Your task to perform on an android device: turn on notifications settings in the gmail app Image 0: 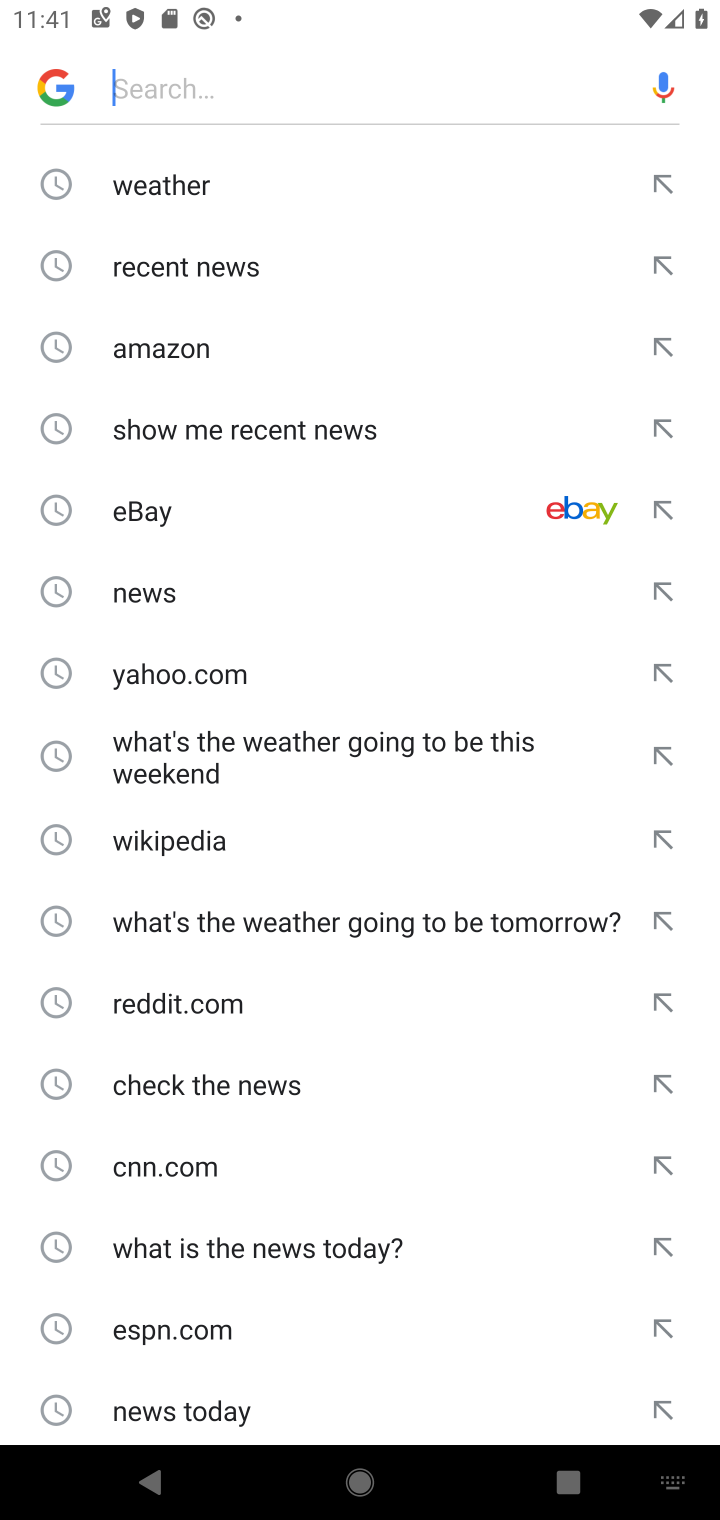
Step 0: press back button
Your task to perform on an android device: turn on notifications settings in the gmail app Image 1: 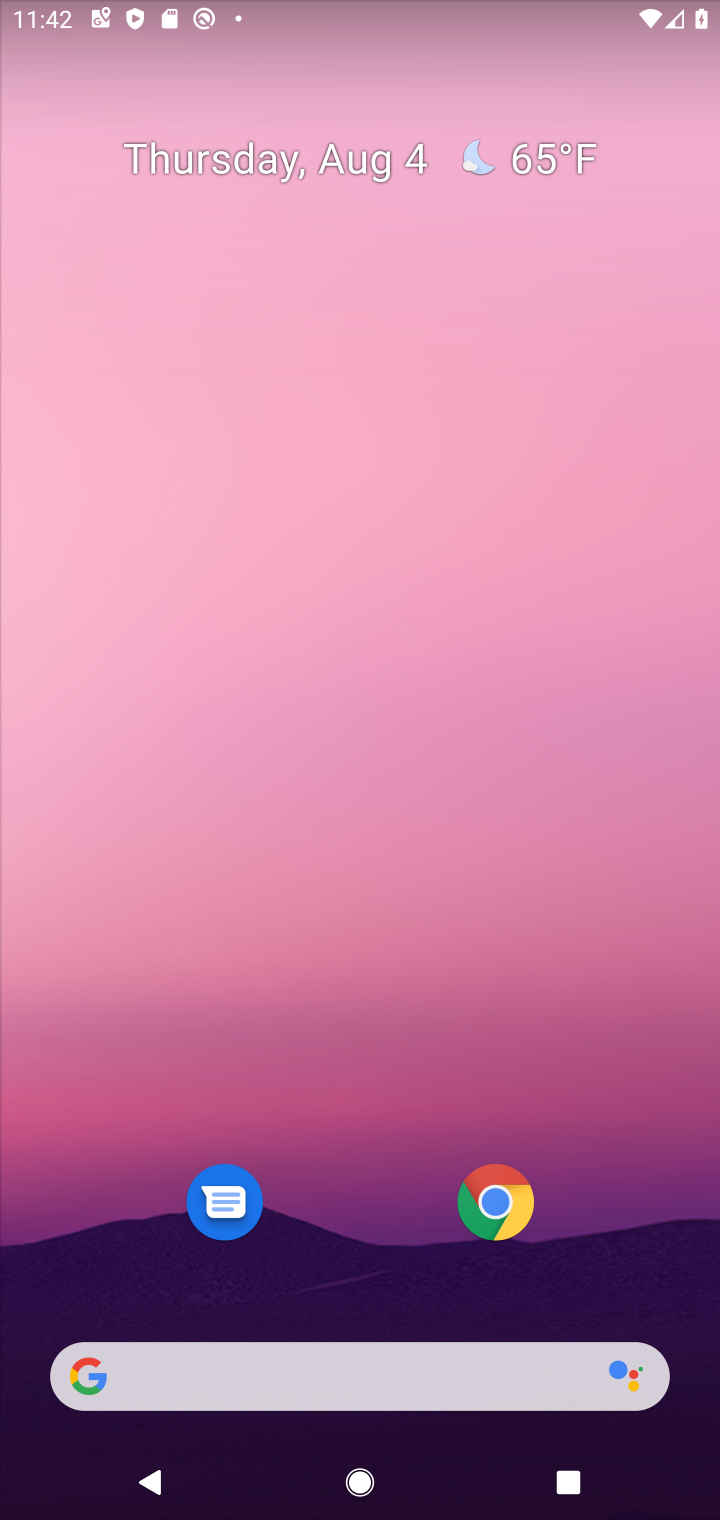
Step 1: drag from (279, 1021) to (482, 81)
Your task to perform on an android device: turn on notifications settings in the gmail app Image 2: 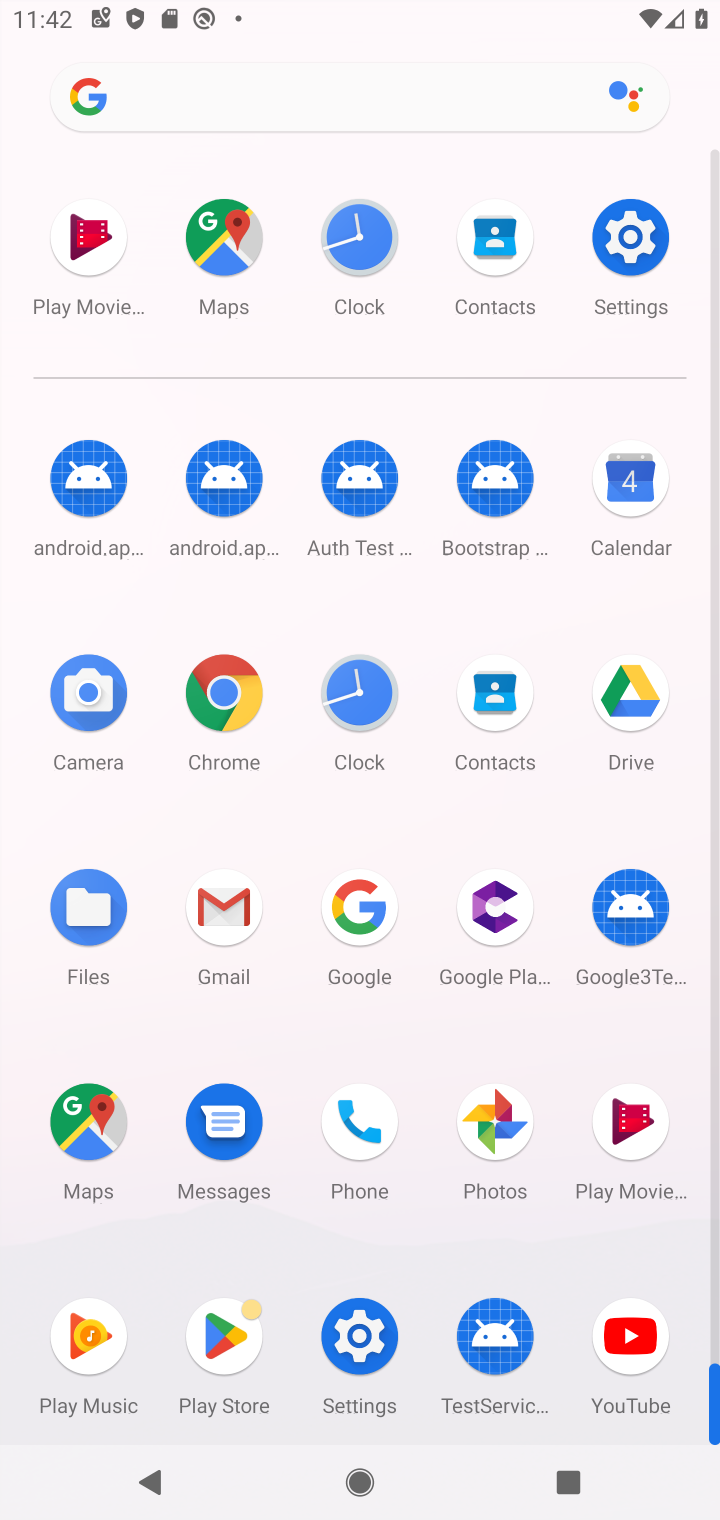
Step 2: click (204, 899)
Your task to perform on an android device: turn on notifications settings in the gmail app Image 3: 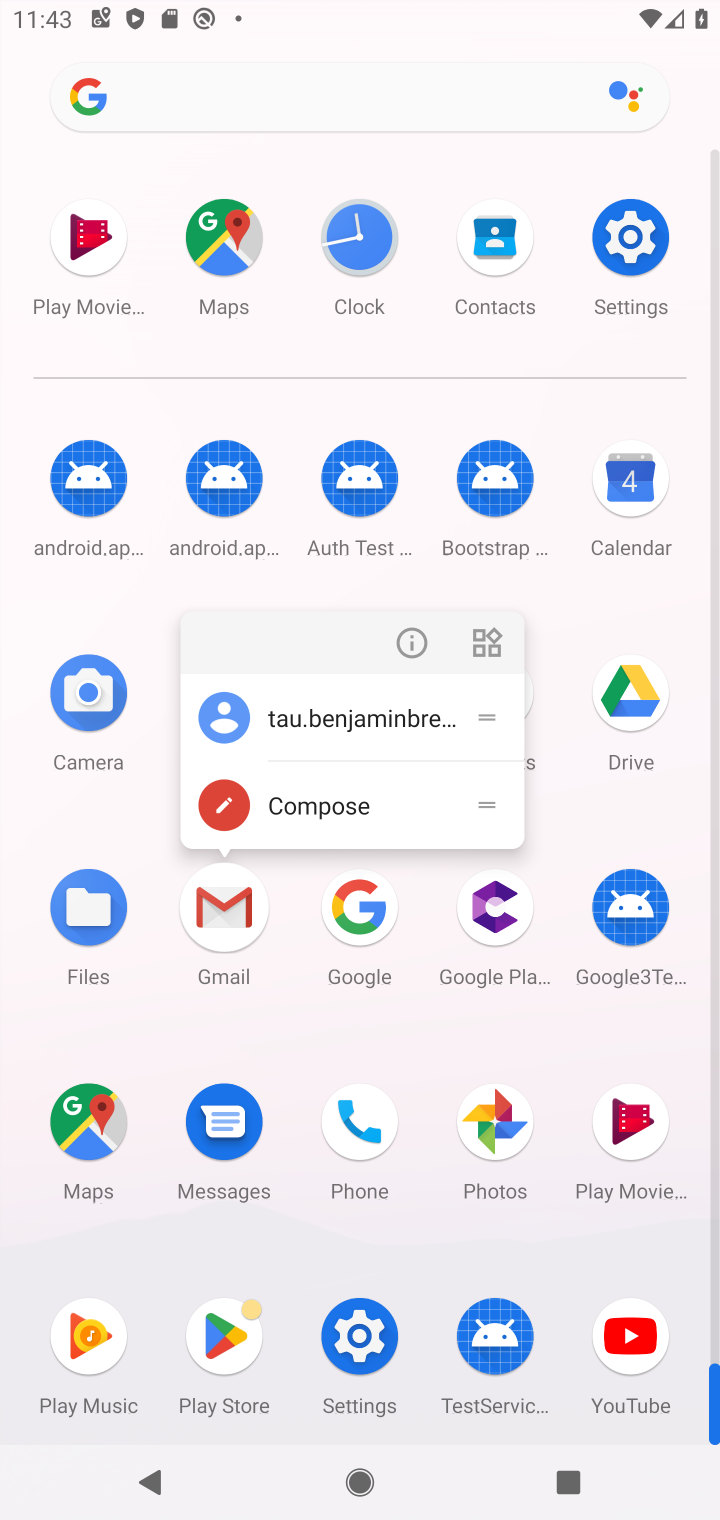
Step 3: click (236, 911)
Your task to perform on an android device: turn on notifications settings in the gmail app Image 4: 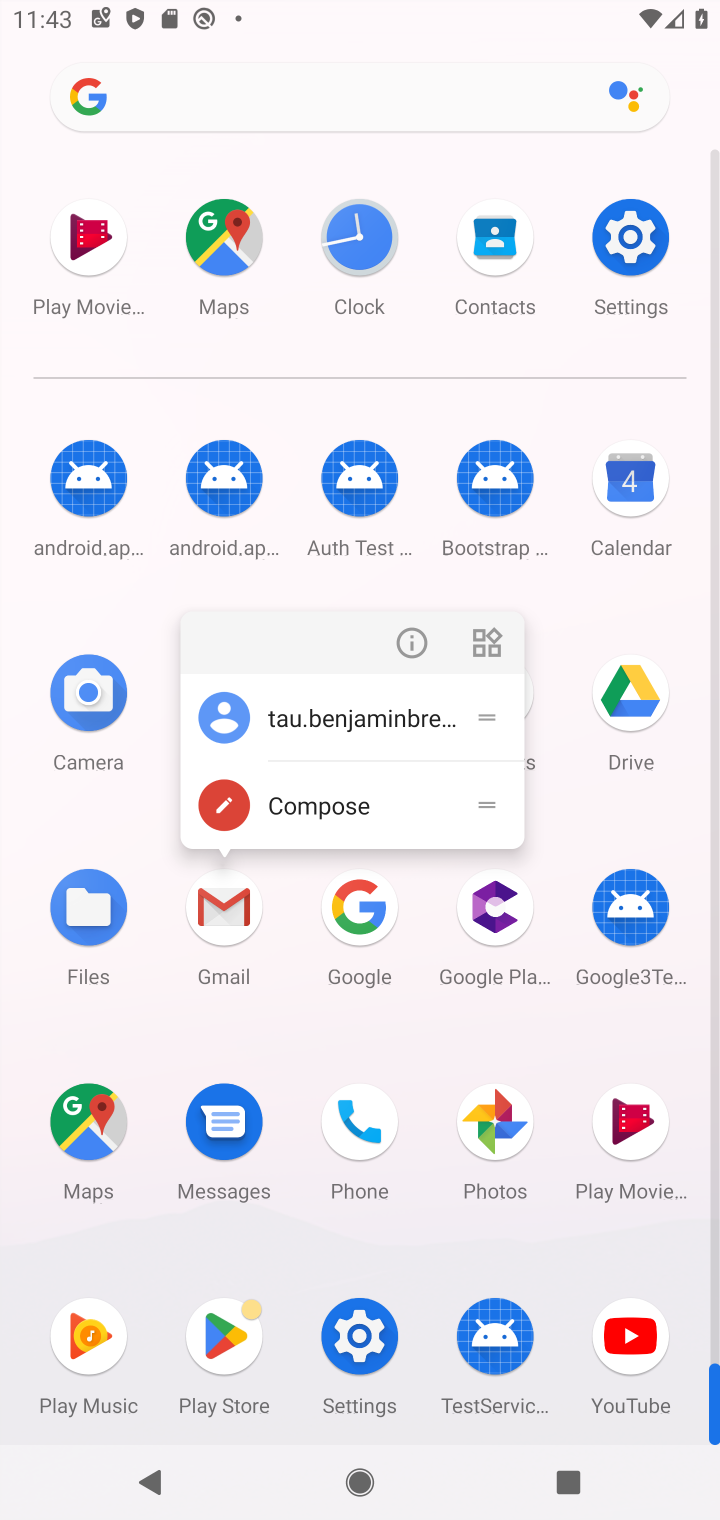
Step 4: click (418, 656)
Your task to perform on an android device: turn on notifications settings in the gmail app Image 5: 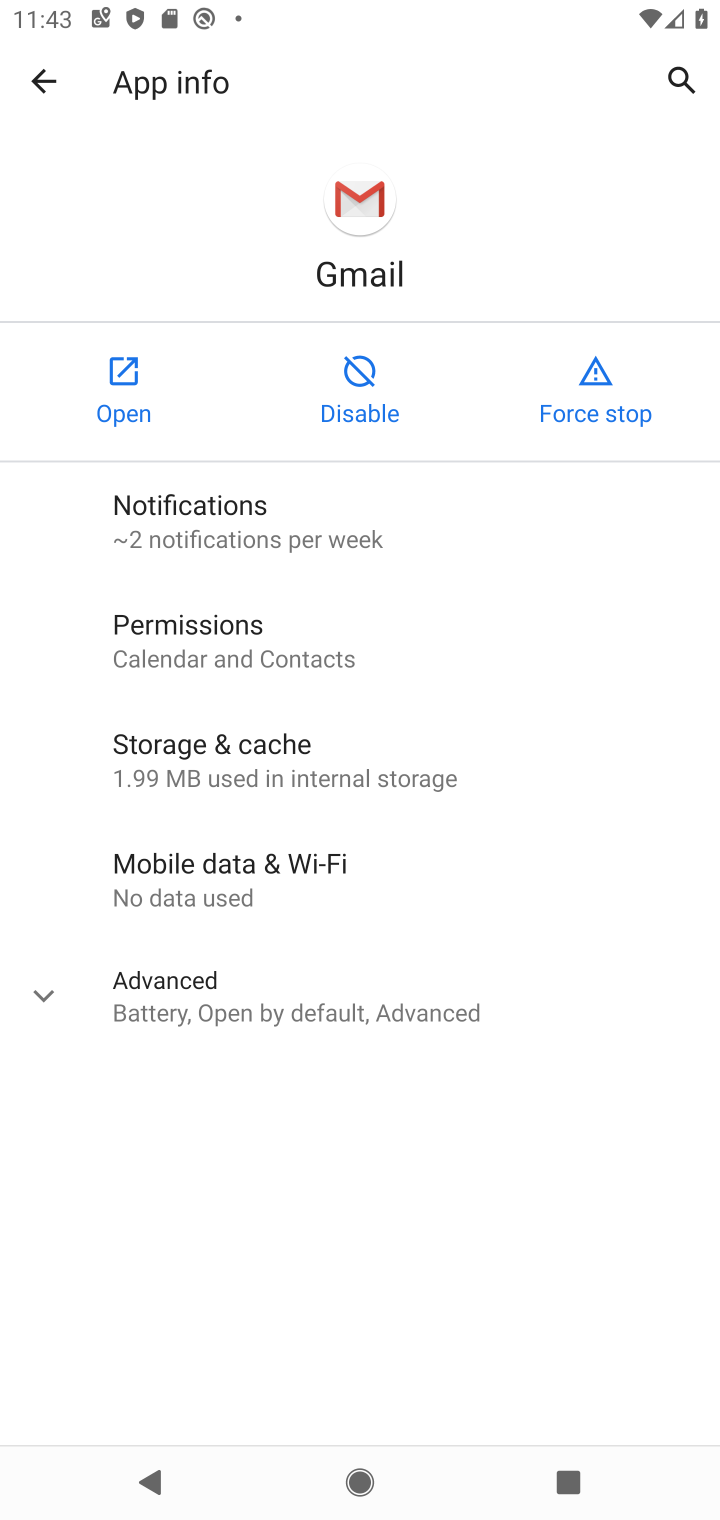
Step 5: click (214, 527)
Your task to perform on an android device: turn on notifications settings in the gmail app Image 6: 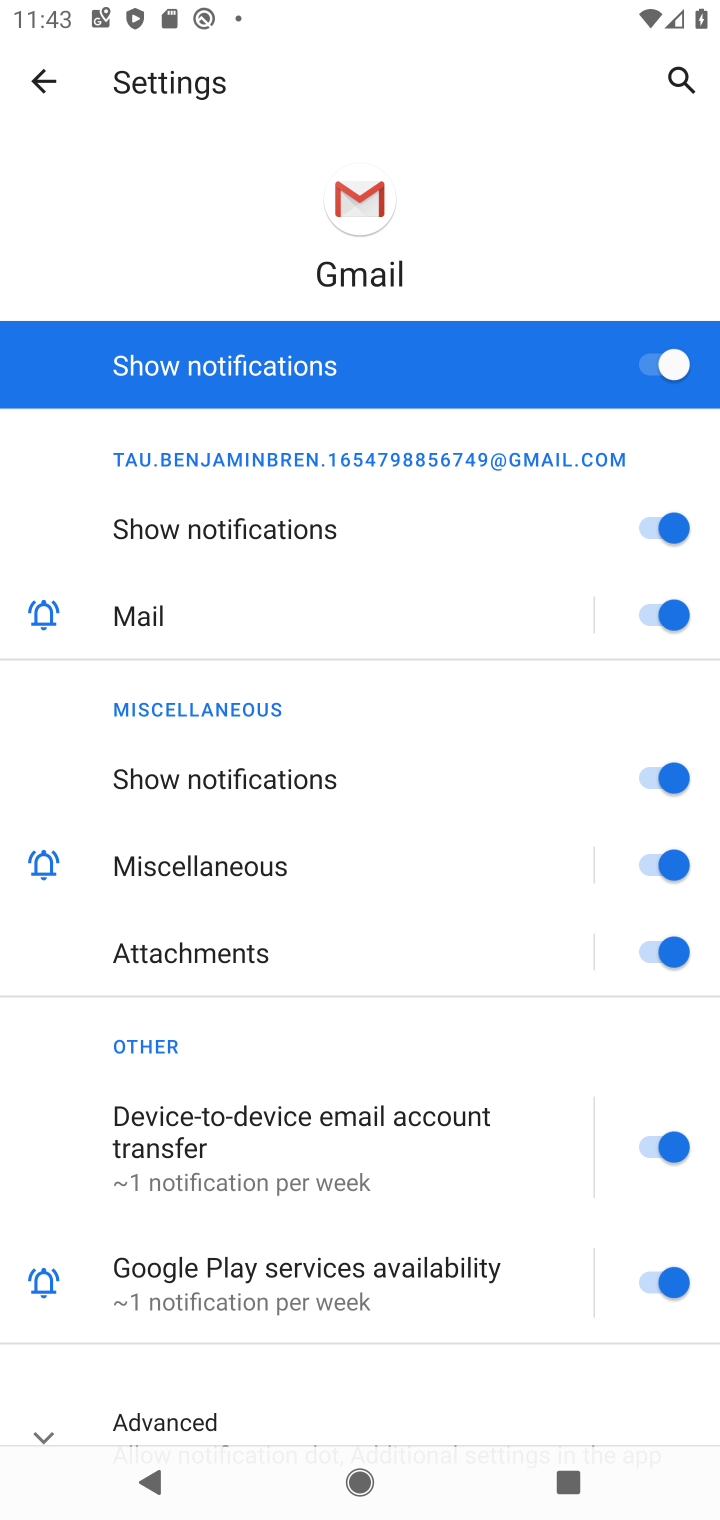
Step 6: task complete